Your task to perform on an android device: toggle javascript in the chrome app Image 0: 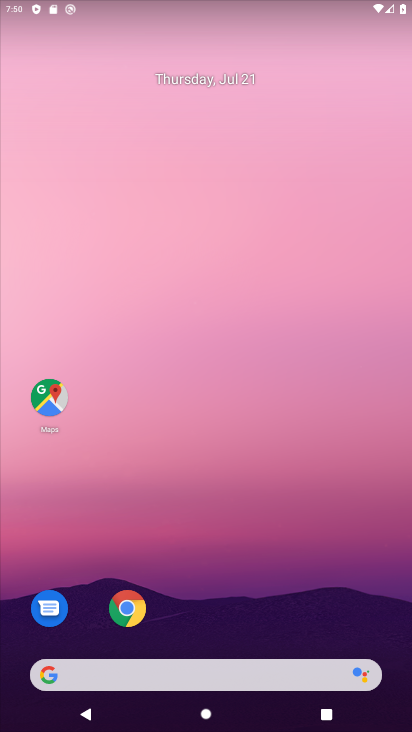
Step 0: press home button
Your task to perform on an android device: toggle javascript in the chrome app Image 1: 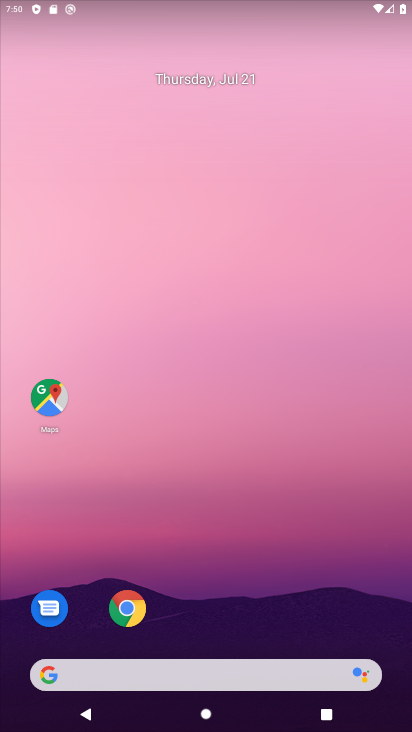
Step 1: click (127, 602)
Your task to perform on an android device: toggle javascript in the chrome app Image 2: 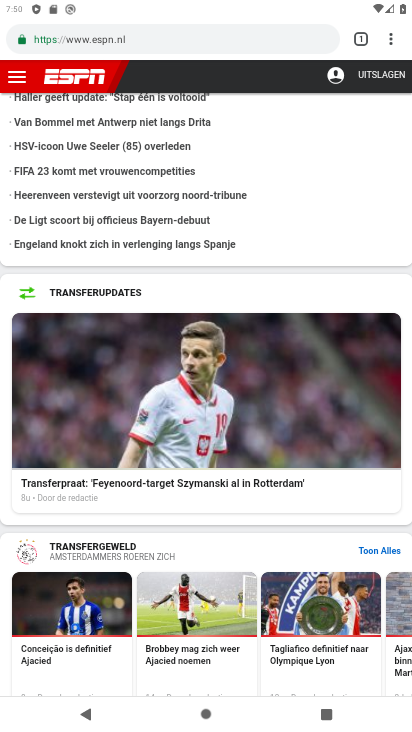
Step 2: click (390, 38)
Your task to perform on an android device: toggle javascript in the chrome app Image 3: 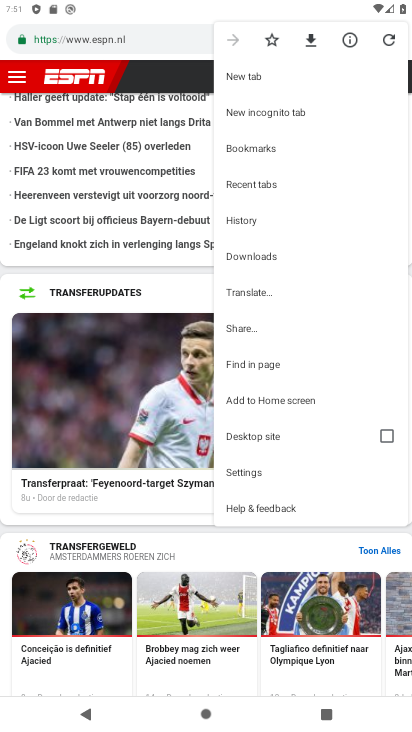
Step 3: click (263, 467)
Your task to perform on an android device: toggle javascript in the chrome app Image 4: 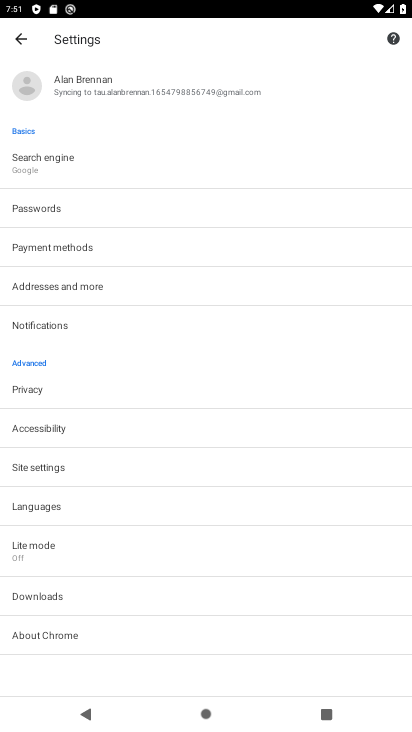
Step 4: click (86, 466)
Your task to perform on an android device: toggle javascript in the chrome app Image 5: 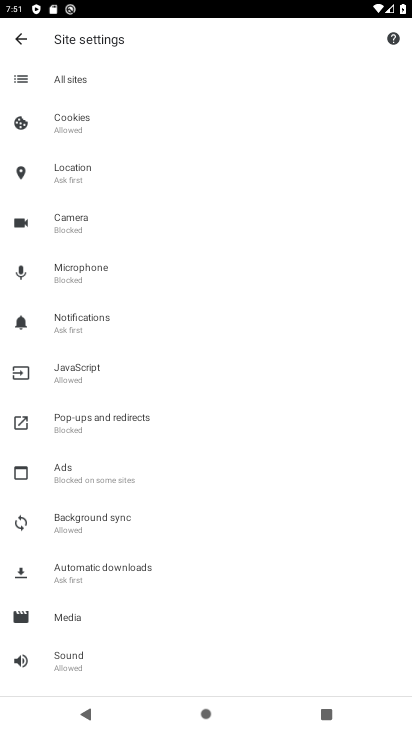
Step 5: click (115, 366)
Your task to perform on an android device: toggle javascript in the chrome app Image 6: 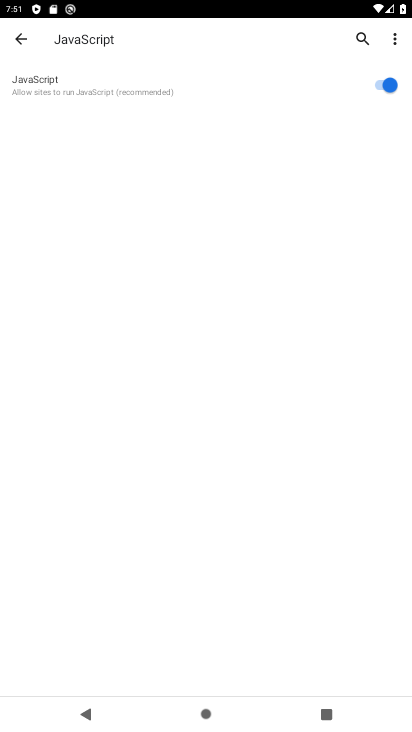
Step 6: click (379, 80)
Your task to perform on an android device: toggle javascript in the chrome app Image 7: 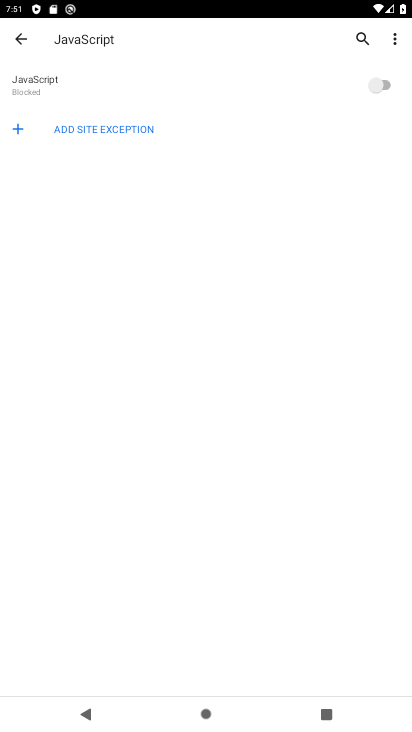
Step 7: task complete